Your task to perform on an android device: Show me popular games on the Play Store Image 0: 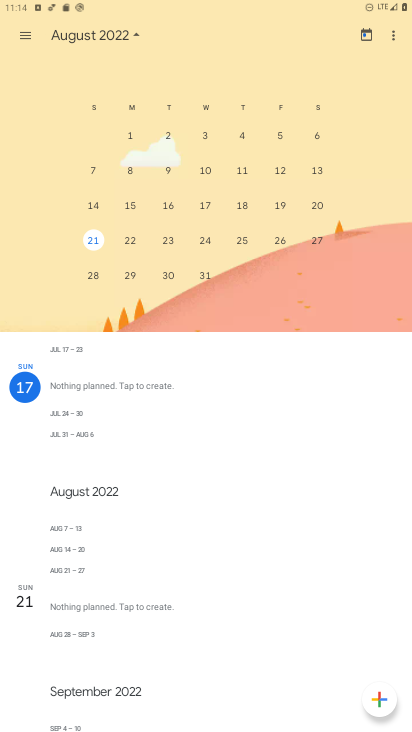
Step 0: press home button
Your task to perform on an android device: Show me popular games on the Play Store Image 1: 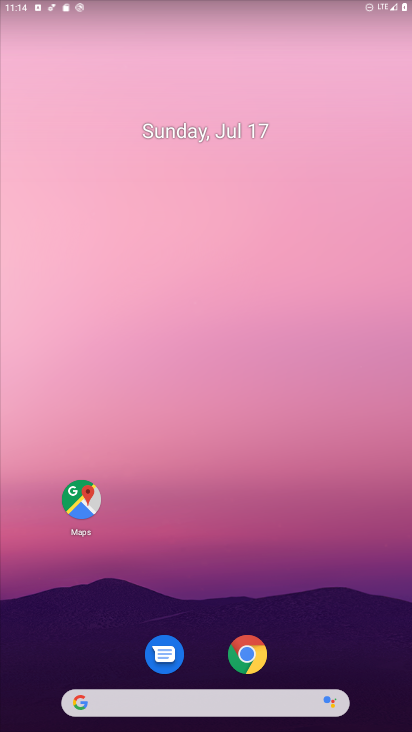
Step 1: drag from (205, 627) to (207, 163)
Your task to perform on an android device: Show me popular games on the Play Store Image 2: 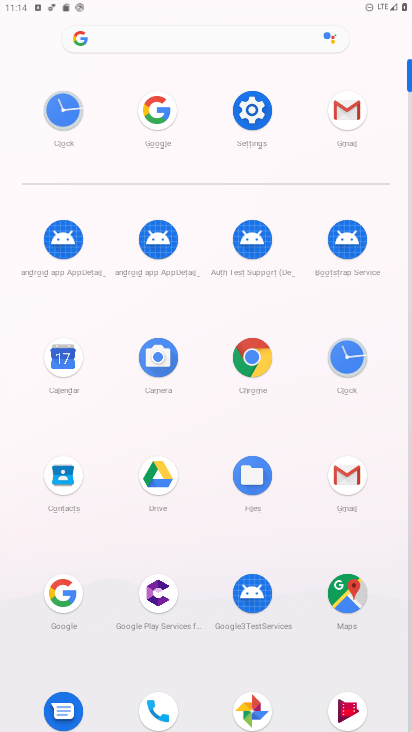
Step 2: drag from (213, 605) to (216, 335)
Your task to perform on an android device: Show me popular games on the Play Store Image 3: 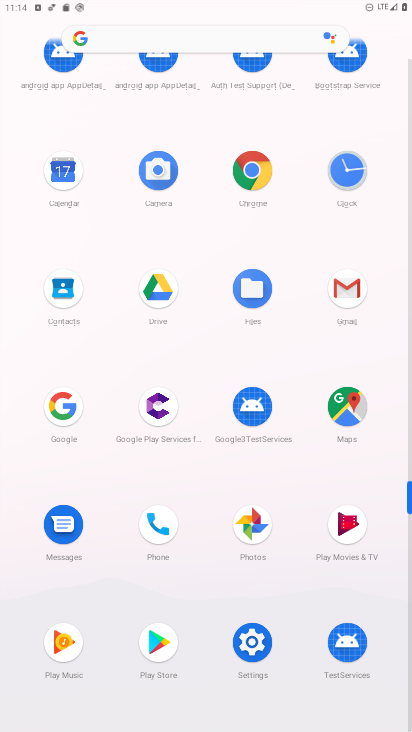
Step 3: click (138, 640)
Your task to perform on an android device: Show me popular games on the Play Store Image 4: 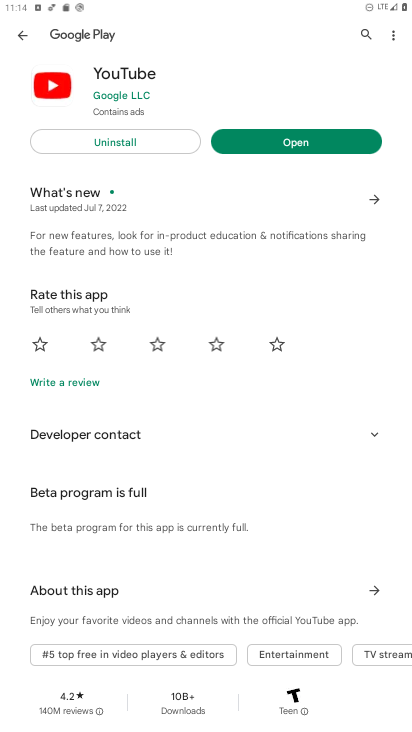
Step 4: click (18, 26)
Your task to perform on an android device: Show me popular games on the Play Store Image 5: 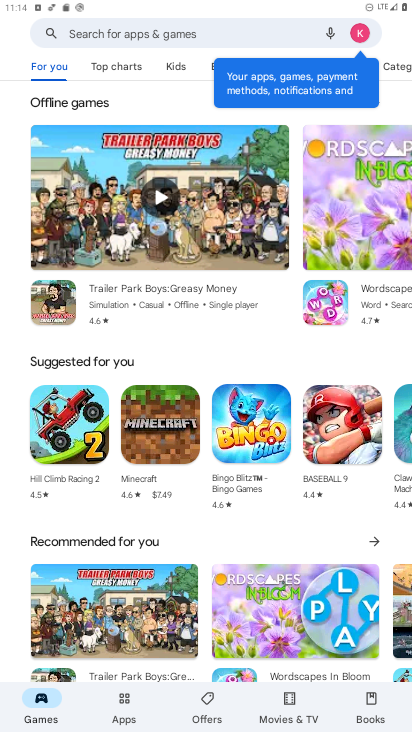
Step 5: click (110, 71)
Your task to perform on an android device: Show me popular games on the Play Store Image 6: 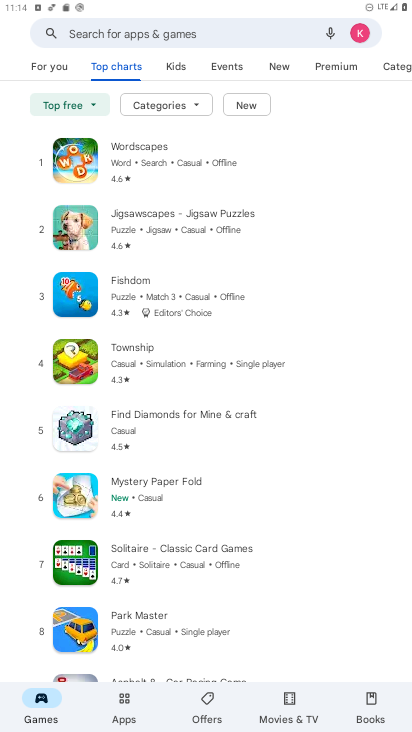
Step 6: task complete